Your task to perform on an android device: Set the phone to "Do not disturb". Image 0: 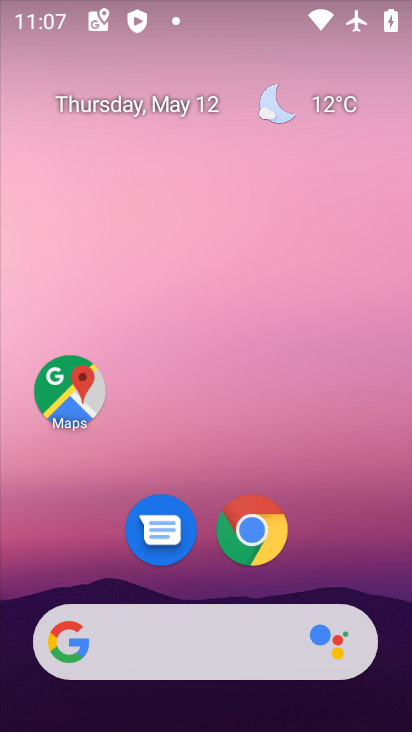
Step 0: drag from (228, 661) to (378, 102)
Your task to perform on an android device: Set the phone to "Do not disturb". Image 1: 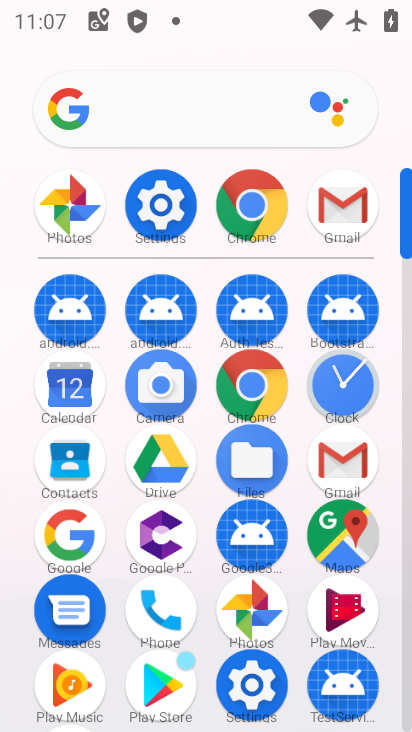
Step 1: click (150, 210)
Your task to perform on an android device: Set the phone to "Do not disturb". Image 2: 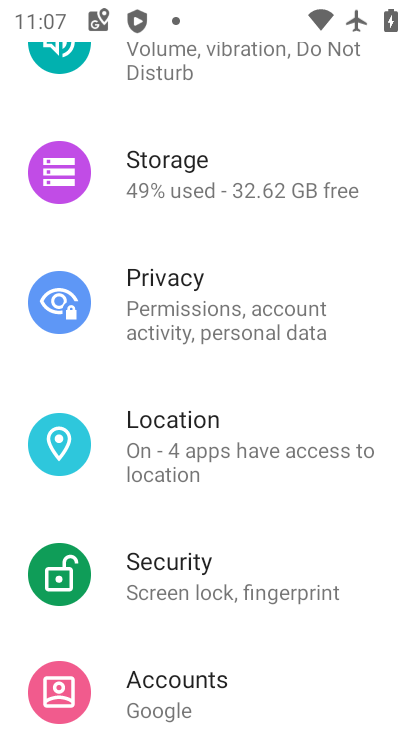
Step 2: drag from (290, 120) to (200, 514)
Your task to perform on an android device: Set the phone to "Do not disturb". Image 3: 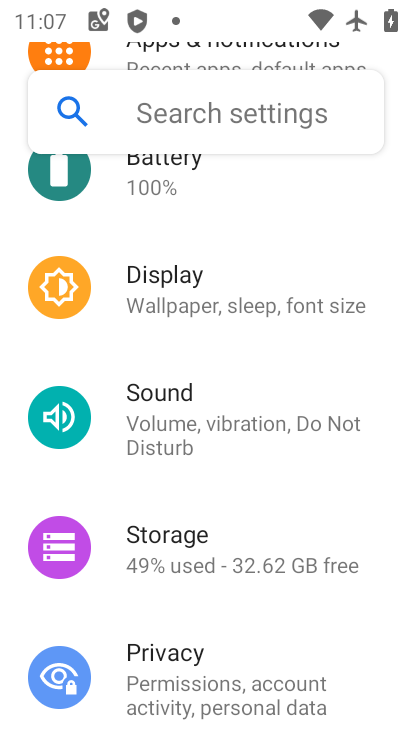
Step 3: click (154, 390)
Your task to perform on an android device: Set the phone to "Do not disturb". Image 4: 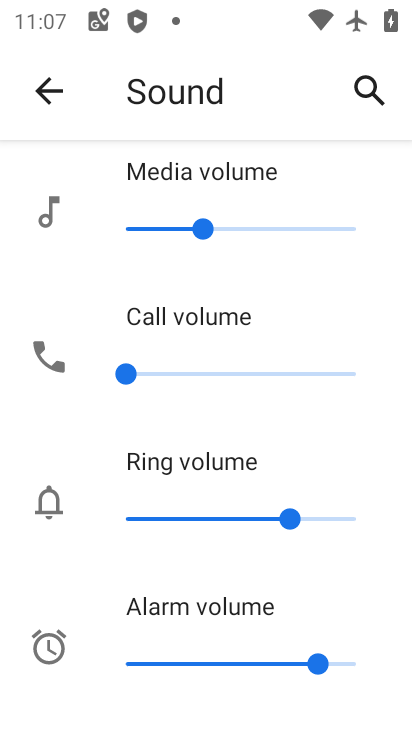
Step 4: drag from (150, 690) to (334, 112)
Your task to perform on an android device: Set the phone to "Do not disturb". Image 5: 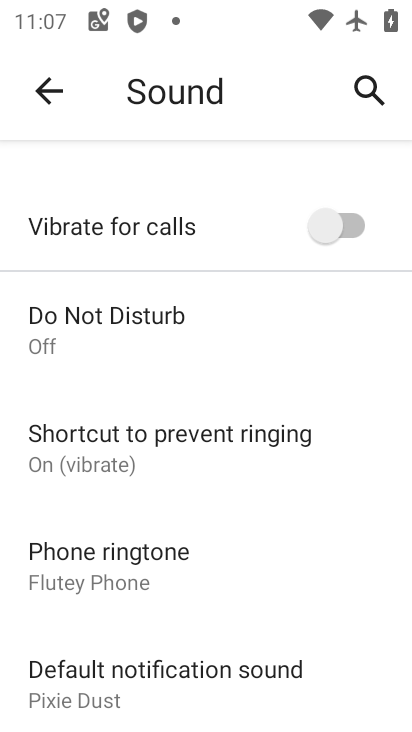
Step 5: click (109, 322)
Your task to perform on an android device: Set the phone to "Do not disturb". Image 6: 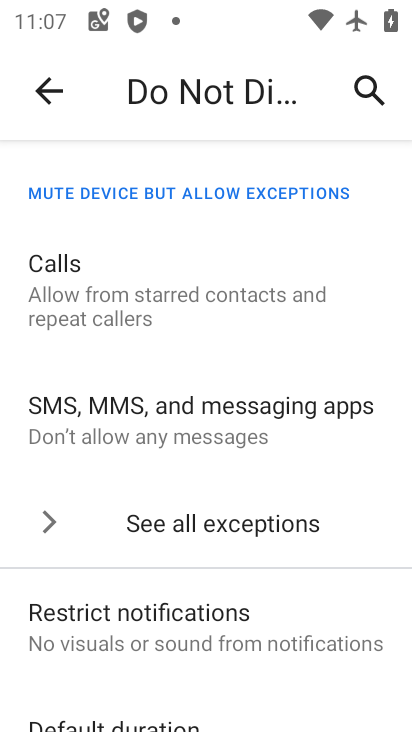
Step 6: drag from (109, 653) to (211, 121)
Your task to perform on an android device: Set the phone to "Do not disturb". Image 7: 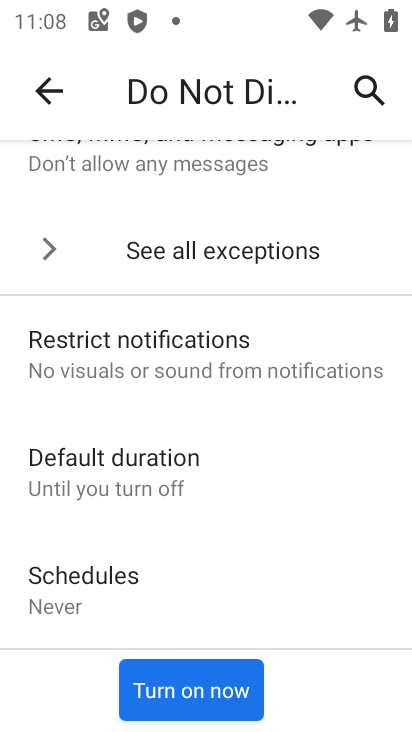
Step 7: click (196, 694)
Your task to perform on an android device: Set the phone to "Do not disturb". Image 8: 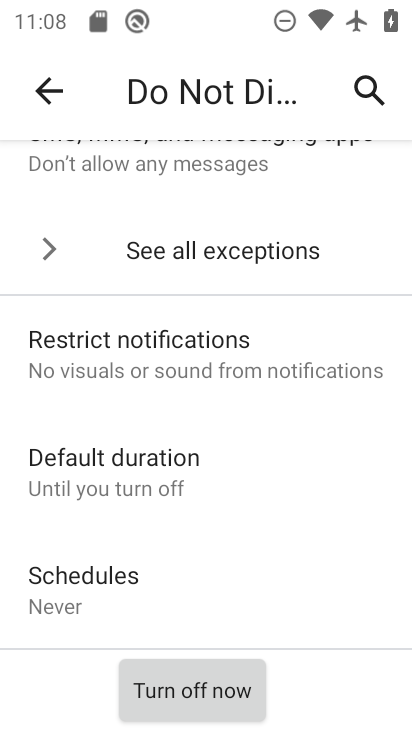
Step 8: task complete